Your task to perform on an android device: Open ESPN.com Image 0: 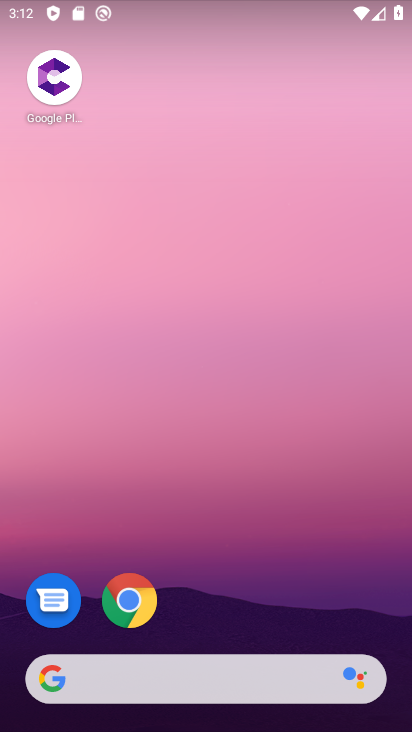
Step 0: click (128, 593)
Your task to perform on an android device: Open ESPN.com Image 1: 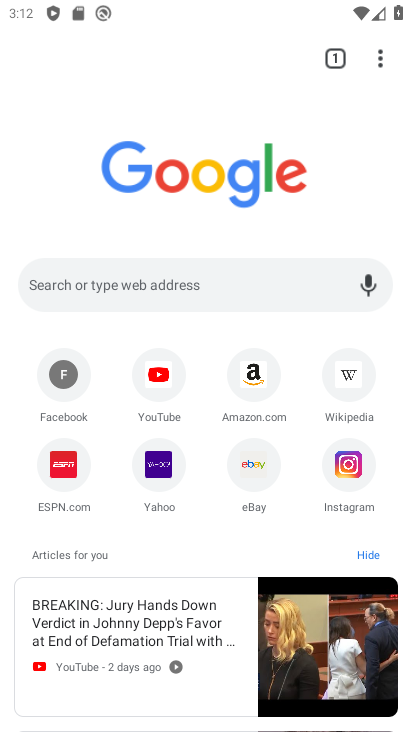
Step 1: click (74, 469)
Your task to perform on an android device: Open ESPN.com Image 2: 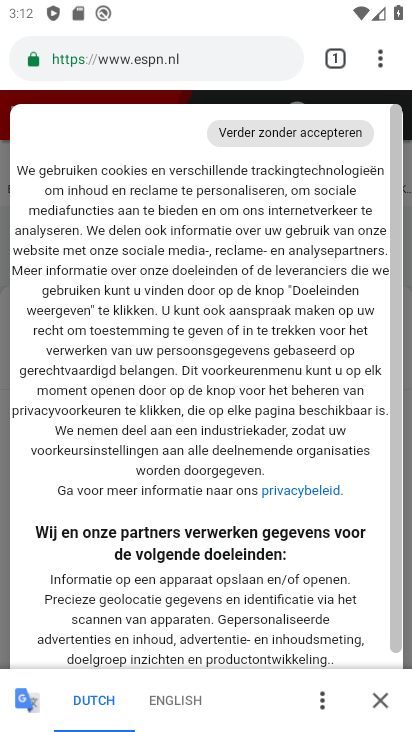
Step 2: task complete